Your task to perform on an android device: allow cookies in the chrome app Image 0: 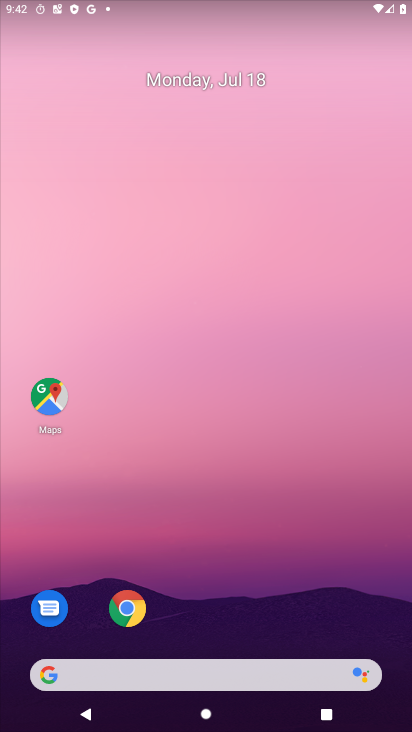
Step 0: click (174, 204)
Your task to perform on an android device: allow cookies in the chrome app Image 1: 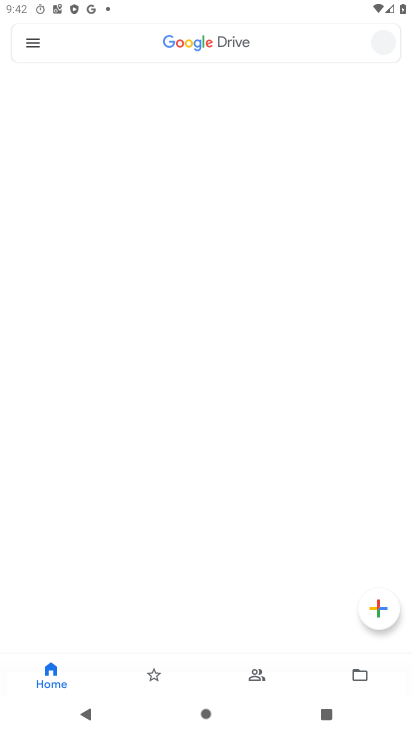
Step 1: drag from (189, 574) to (192, 90)
Your task to perform on an android device: allow cookies in the chrome app Image 2: 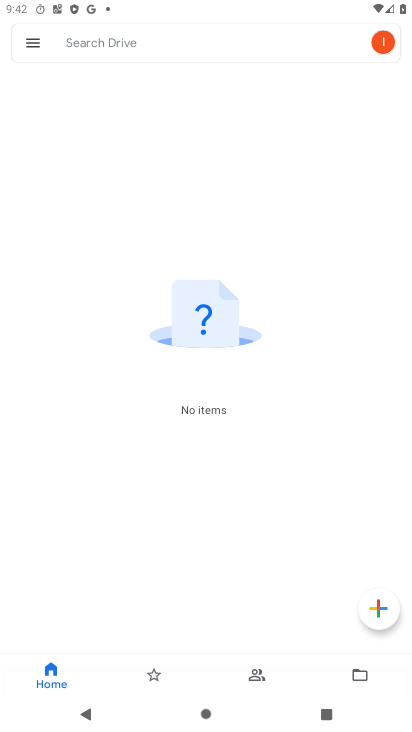
Step 2: press home button
Your task to perform on an android device: allow cookies in the chrome app Image 3: 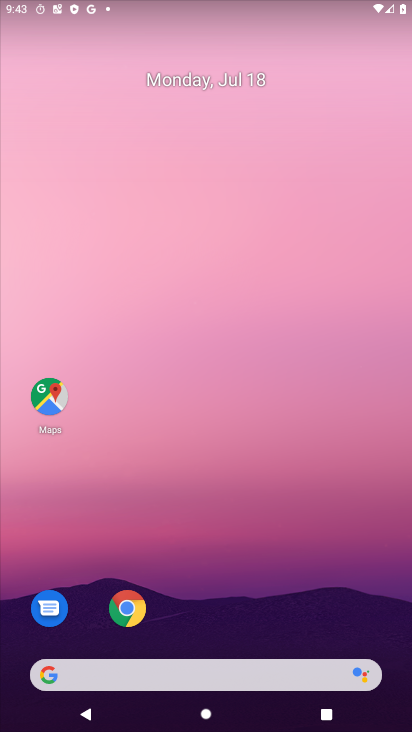
Step 3: click (120, 619)
Your task to perform on an android device: allow cookies in the chrome app Image 4: 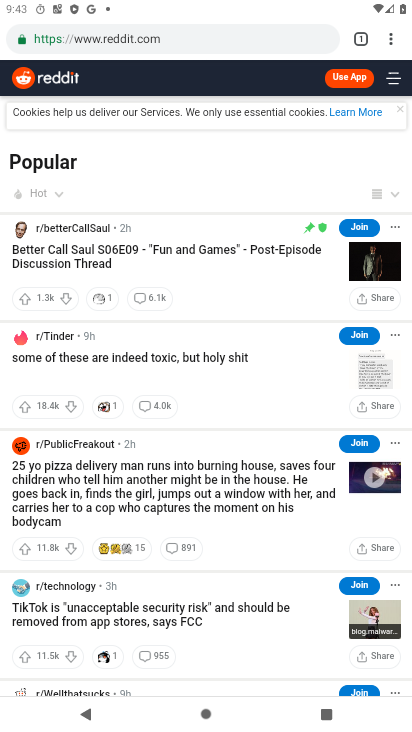
Step 4: click (393, 43)
Your task to perform on an android device: allow cookies in the chrome app Image 5: 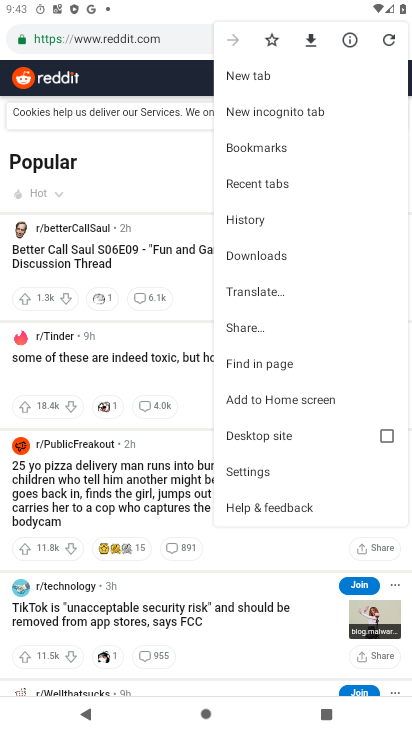
Step 5: click (239, 472)
Your task to perform on an android device: allow cookies in the chrome app Image 6: 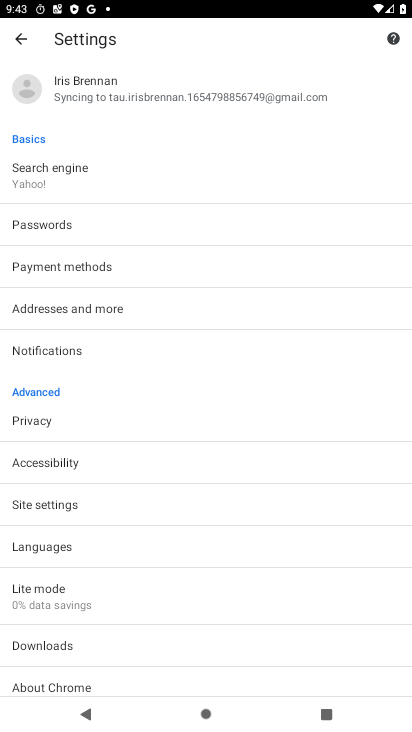
Step 6: click (50, 502)
Your task to perform on an android device: allow cookies in the chrome app Image 7: 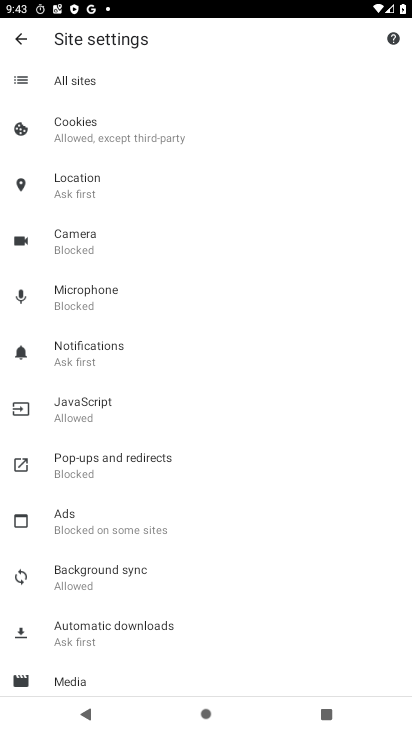
Step 7: click (93, 131)
Your task to perform on an android device: allow cookies in the chrome app Image 8: 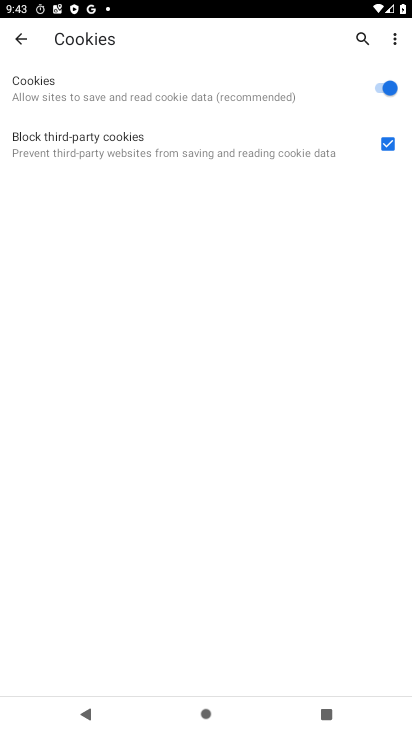
Step 8: task complete